Your task to perform on an android device: open the mobile data screen to see how much data has been used Image 0: 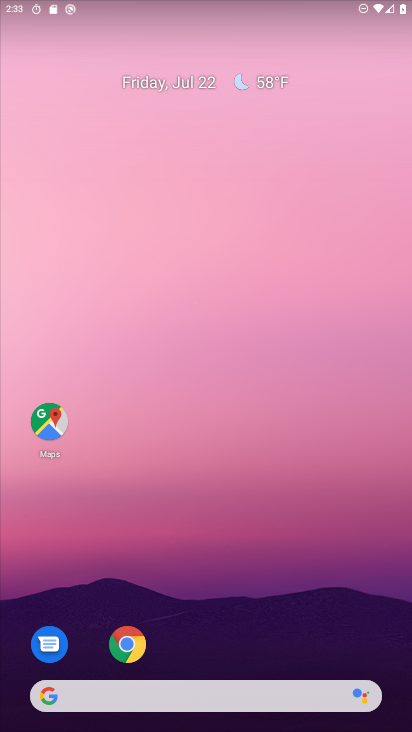
Step 0: drag from (237, 632) to (236, 237)
Your task to perform on an android device: open the mobile data screen to see how much data has been used Image 1: 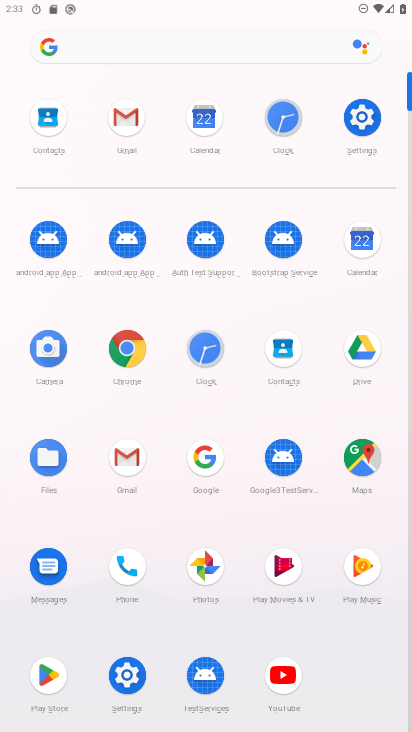
Step 1: click (366, 125)
Your task to perform on an android device: open the mobile data screen to see how much data has been used Image 2: 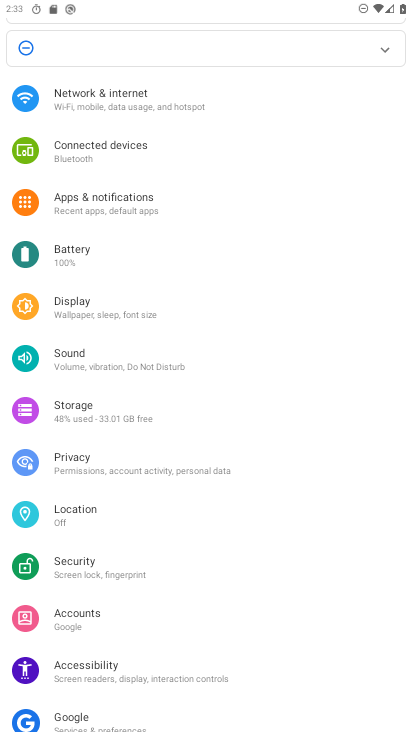
Step 2: click (138, 117)
Your task to perform on an android device: open the mobile data screen to see how much data has been used Image 3: 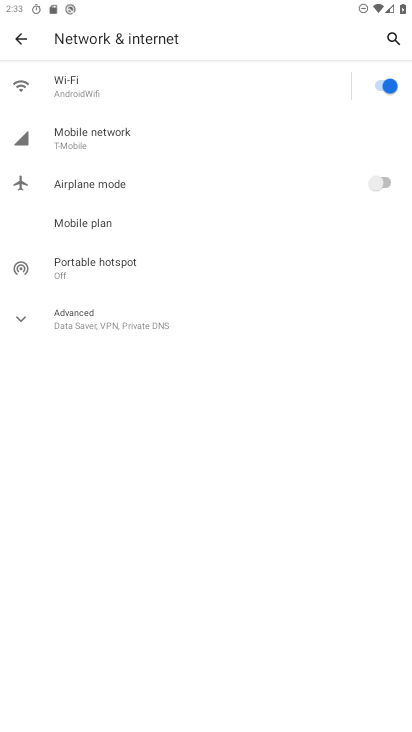
Step 3: click (123, 142)
Your task to perform on an android device: open the mobile data screen to see how much data has been used Image 4: 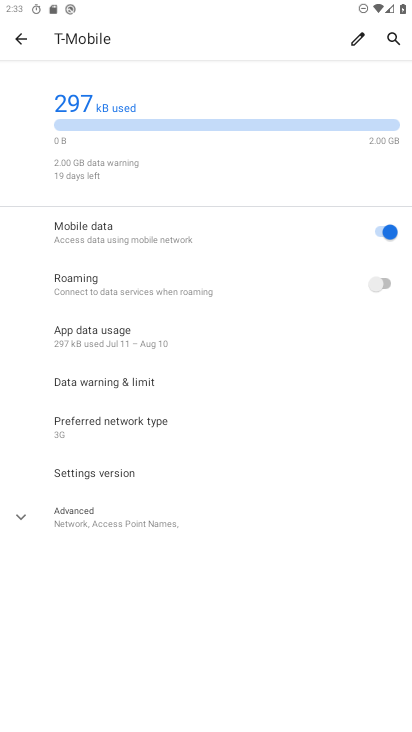
Step 4: task complete